Your task to perform on an android device: turn off smart reply in the gmail app Image 0: 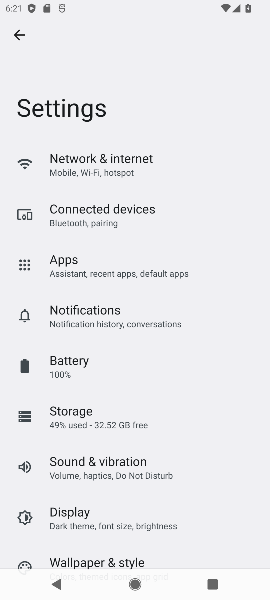
Step 0: press home button
Your task to perform on an android device: turn off smart reply in the gmail app Image 1: 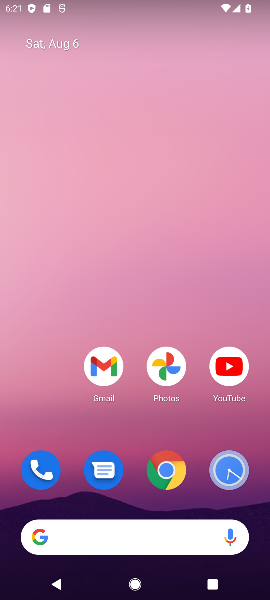
Step 1: drag from (128, 499) to (184, 111)
Your task to perform on an android device: turn off smart reply in the gmail app Image 2: 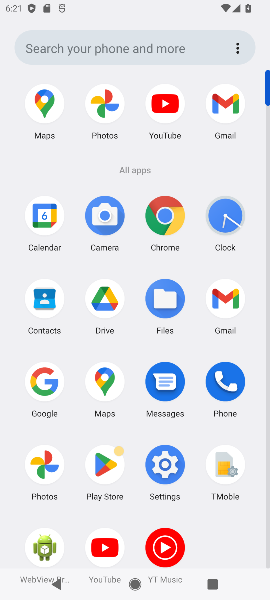
Step 2: click (229, 291)
Your task to perform on an android device: turn off smart reply in the gmail app Image 3: 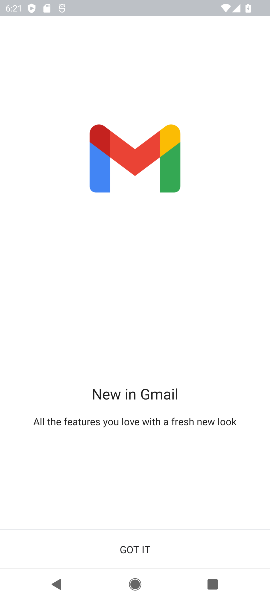
Step 3: click (134, 549)
Your task to perform on an android device: turn off smart reply in the gmail app Image 4: 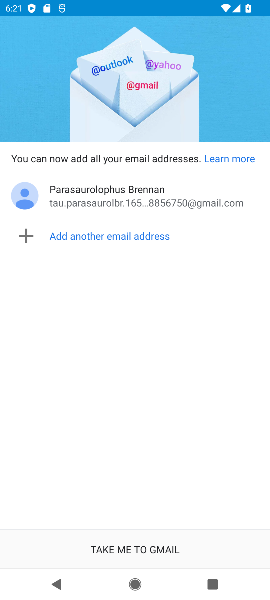
Step 4: click (140, 549)
Your task to perform on an android device: turn off smart reply in the gmail app Image 5: 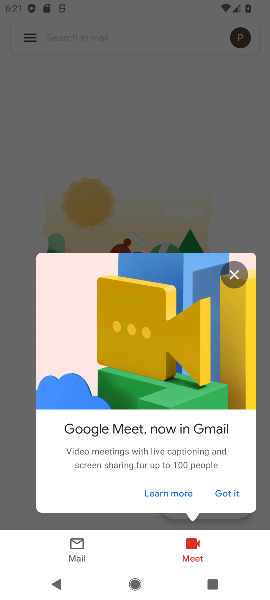
Step 5: click (235, 273)
Your task to perform on an android device: turn off smart reply in the gmail app Image 6: 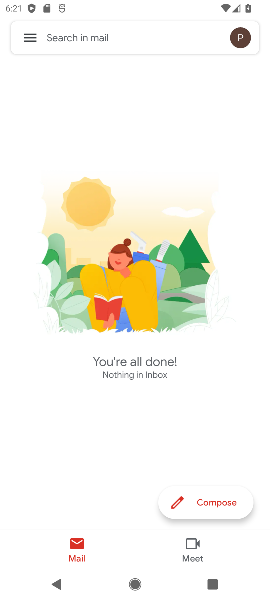
Step 6: click (25, 28)
Your task to perform on an android device: turn off smart reply in the gmail app Image 7: 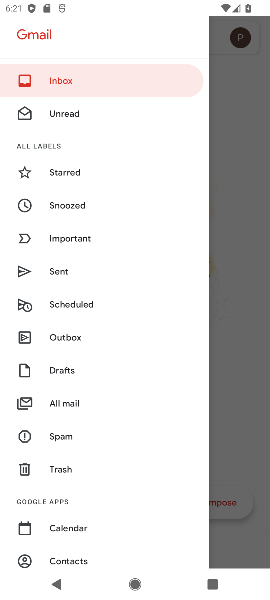
Step 7: drag from (103, 485) to (148, 169)
Your task to perform on an android device: turn off smart reply in the gmail app Image 8: 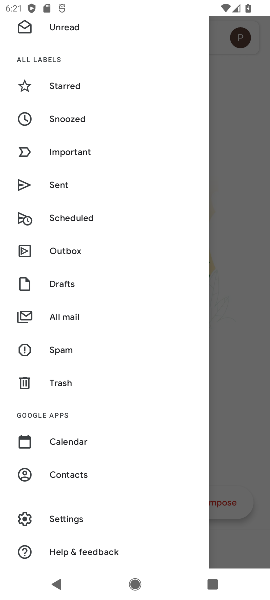
Step 8: click (64, 512)
Your task to perform on an android device: turn off smart reply in the gmail app Image 9: 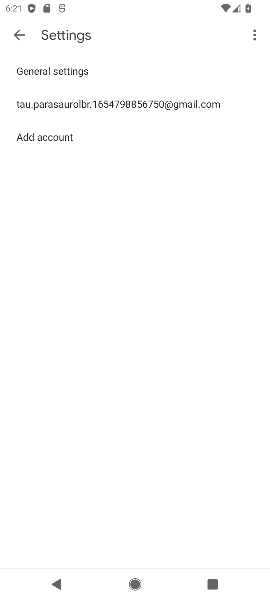
Step 9: click (104, 105)
Your task to perform on an android device: turn off smart reply in the gmail app Image 10: 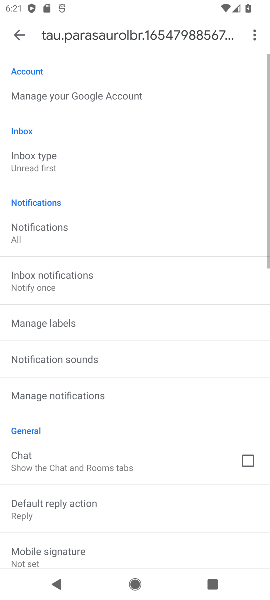
Step 10: drag from (136, 513) to (177, 171)
Your task to perform on an android device: turn off smart reply in the gmail app Image 11: 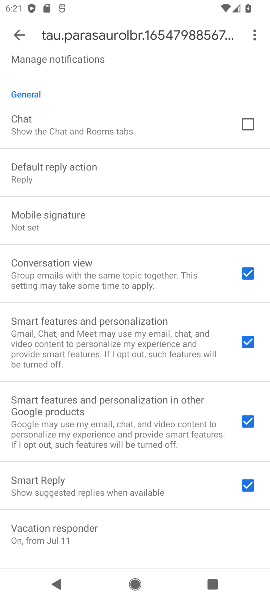
Step 11: click (177, 486)
Your task to perform on an android device: turn off smart reply in the gmail app Image 12: 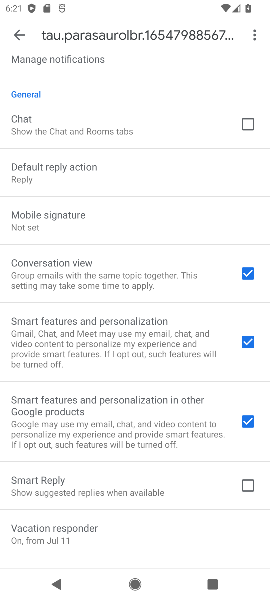
Step 12: task complete